Your task to perform on an android device: turn off airplane mode Image 0: 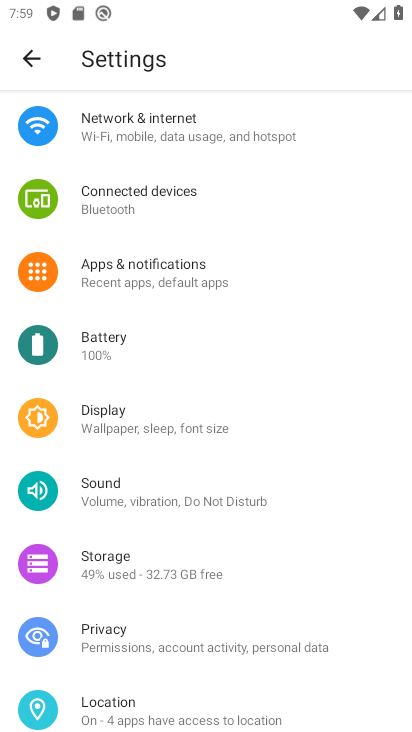
Step 0: press home button
Your task to perform on an android device: turn off airplane mode Image 1: 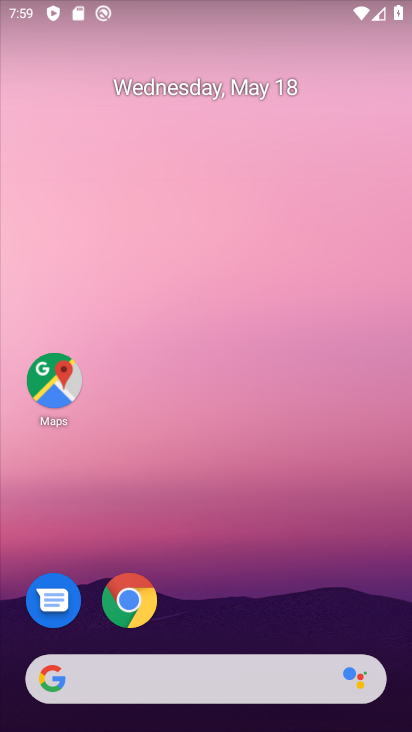
Step 1: task complete